Your task to perform on an android device: open sync settings in chrome Image 0: 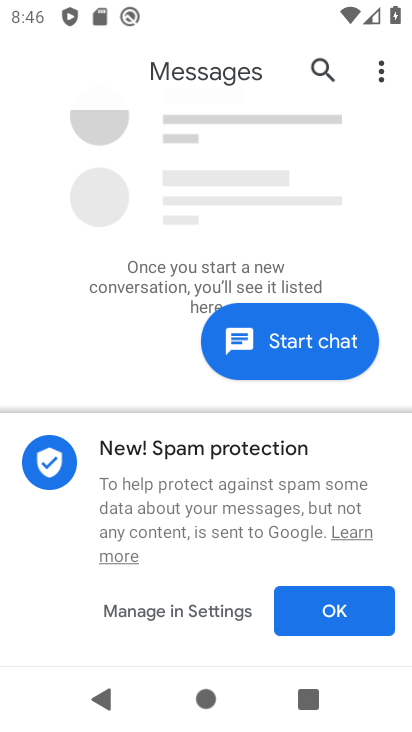
Step 0: press home button
Your task to perform on an android device: open sync settings in chrome Image 1: 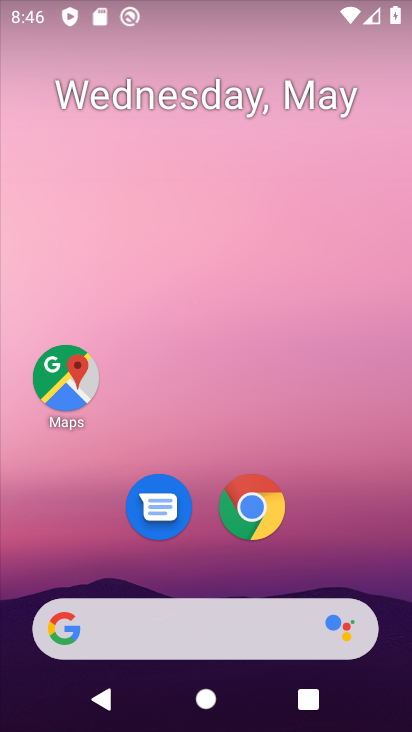
Step 1: click (260, 525)
Your task to perform on an android device: open sync settings in chrome Image 2: 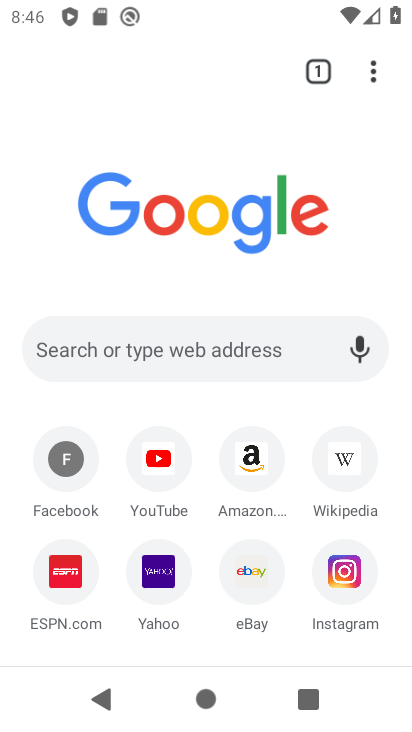
Step 2: click (377, 86)
Your task to perform on an android device: open sync settings in chrome Image 3: 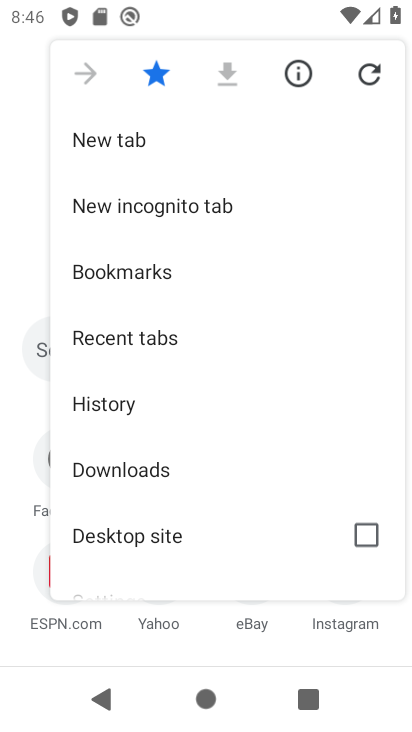
Step 3: drag from (223, 565) to (190, 155)
Your task to perform on an android device: open sync settings in chrome Image 4: 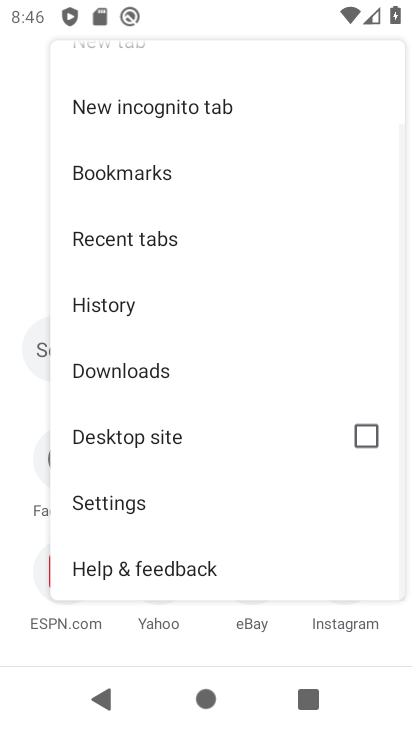
Step 4: click (165, 494)
Your task to perform on an android device: open sync settings in chrome Image 5: 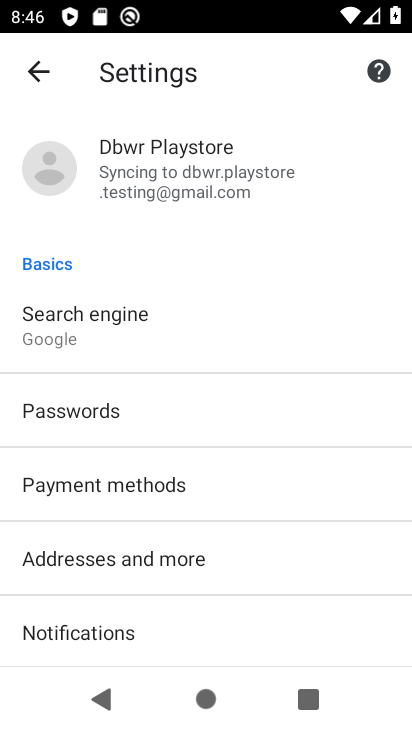
Step 5: click (183, 168)
Your task to perform on an android device: open sync settings in chrome Image 6: 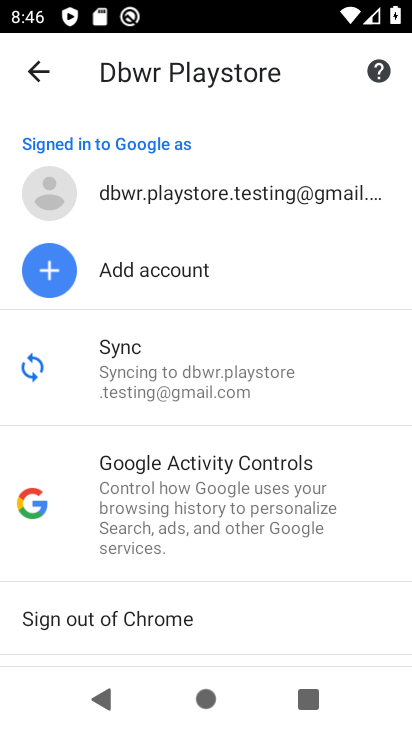
Step 6: click (182, 342)
Your task to perform on an android device: open sync settings in chrome Image 7: 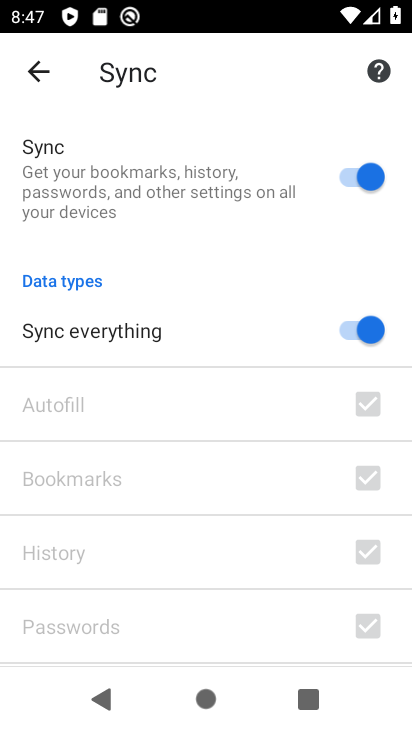
Step 7: task complete